Your task to perform on an android device: Go to privacy settings Image 0: 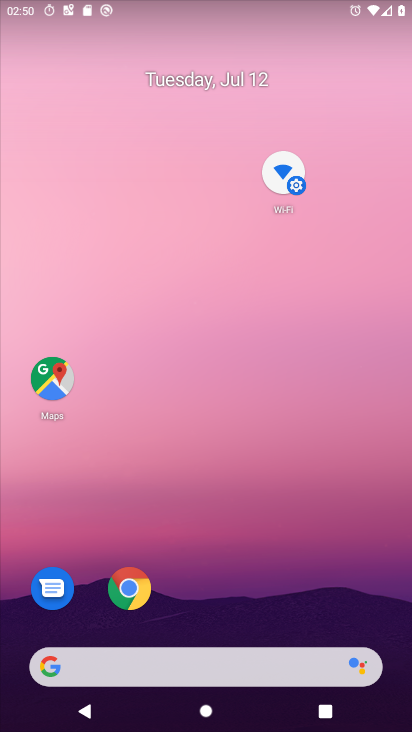
Step 0: click (268, 90)
Your task to perform on an android device: Go to privacy settings Image 1: 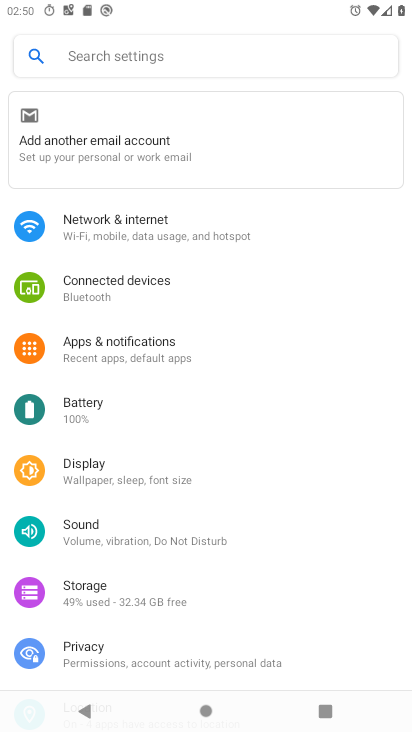
Step 1: drag from (190, 625) to (227, 399)
Your task to perform on an android device: Go to privacy settings Image 2: 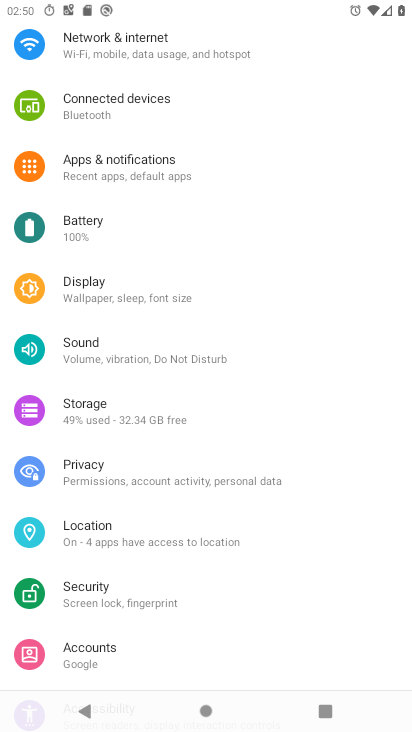
Step 2: click (87, 461)
Your task to perform on an android device: Go to privacy settings Image 3: 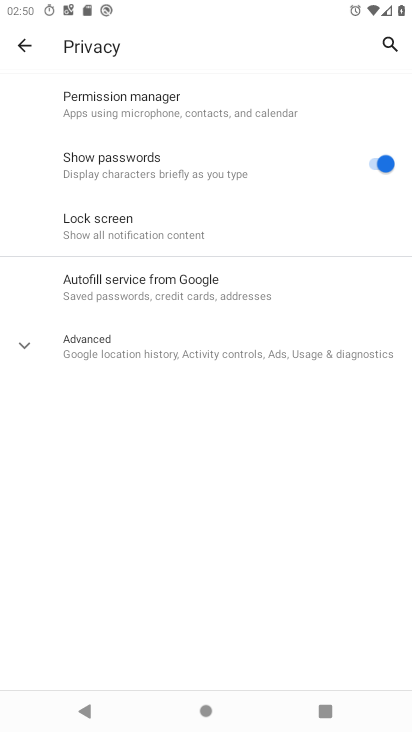
Step 3: task complete